Your task to perform on an android device: Go to Maps Image 0: 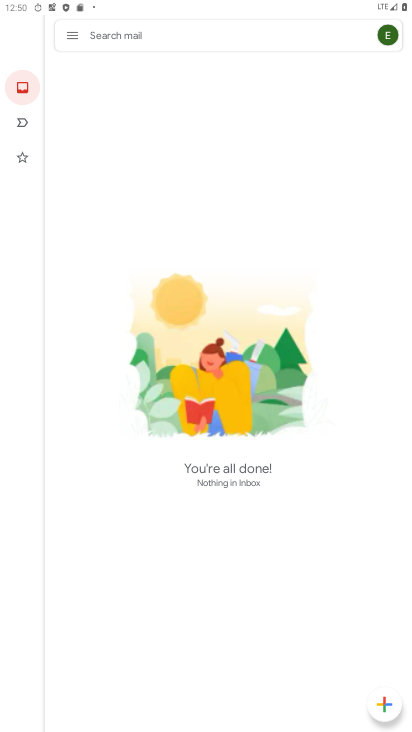
Step 0: press home button
Your task to perform on an android device: Go to Maps Image 1: 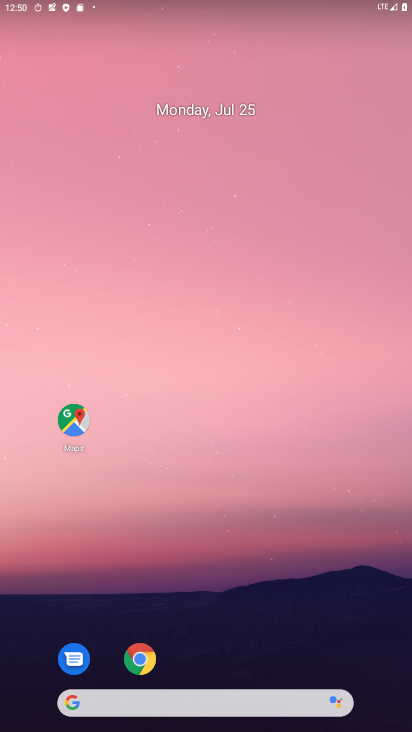
Step 1: click (76, 431)
Your task to perform on an android device: Go to Maps Image 2: 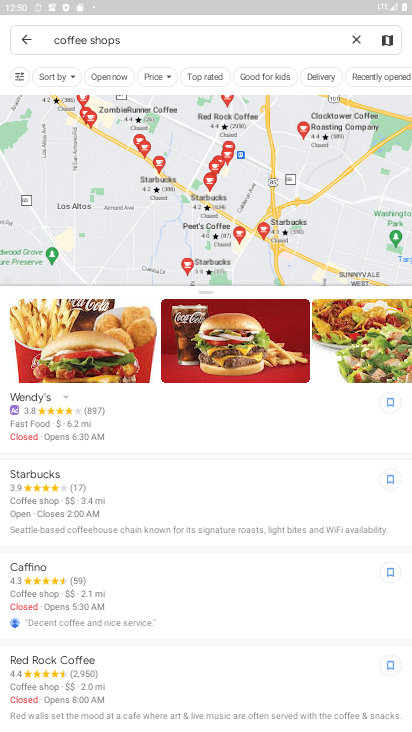
Step 2: click (31, 40)
Your task to perform on an android device: Go to Maps Image 3: 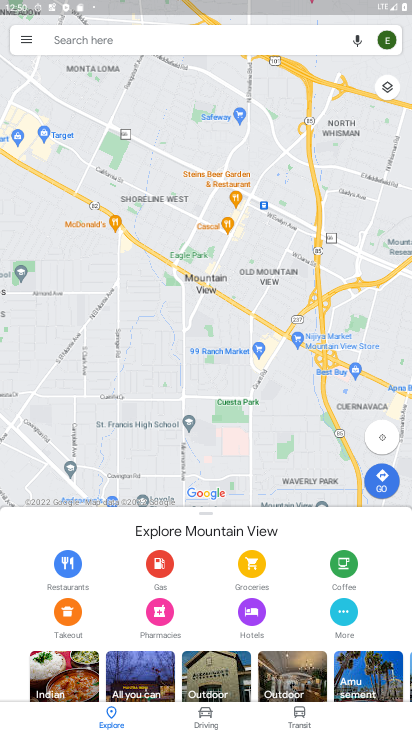
Step 3: task complete